Your task to perform on an android device: set the timer Image 0: 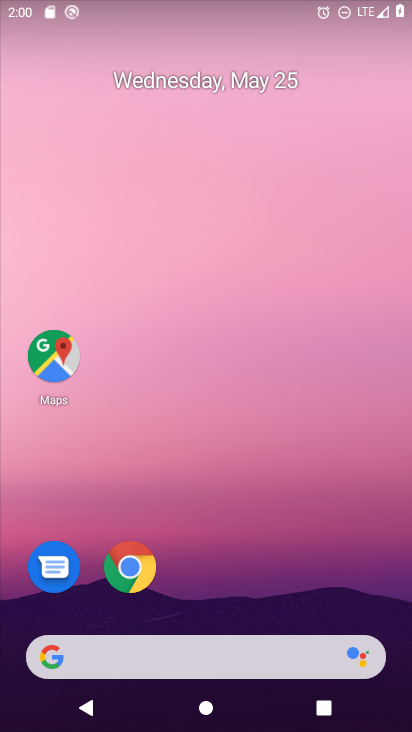
Step 0: press home button
Your task to perform on an android device: set the timer Image 1: 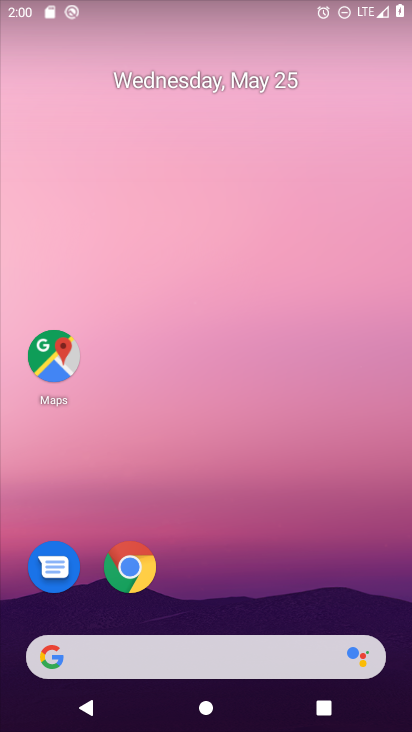
Step 1: drag from (397, 698) to (348, 270)
Your task to perform on an android device: set the timer Image 2: 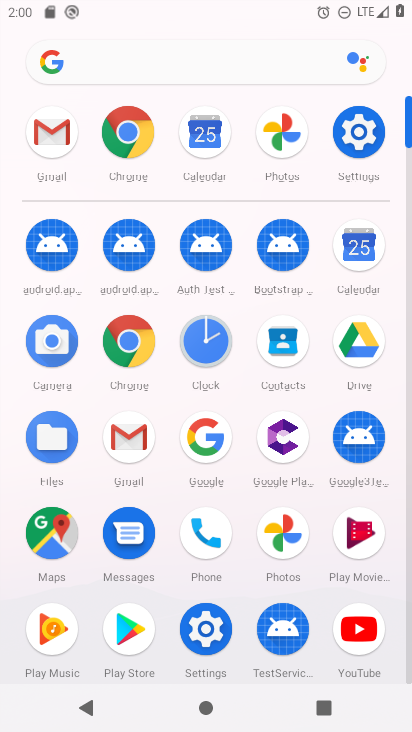
Step 2: click (347, 128)
Your task to perform on an android device: set the timer Image 3: 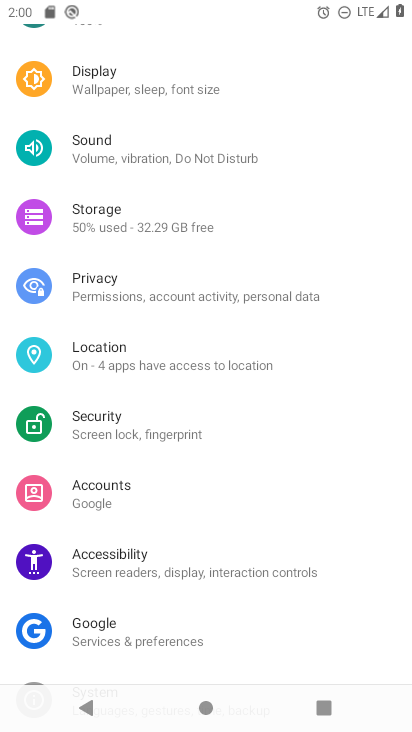
Step 3: press home button
Your task to perform on an android device: set the timer Image 4: 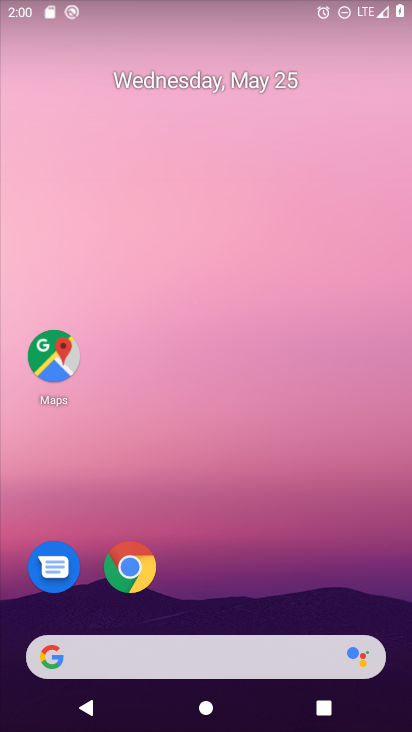
Step 4: drag from (393, 696) to (369, 206)
Your task to perform on an android device: set the timer Image 5: 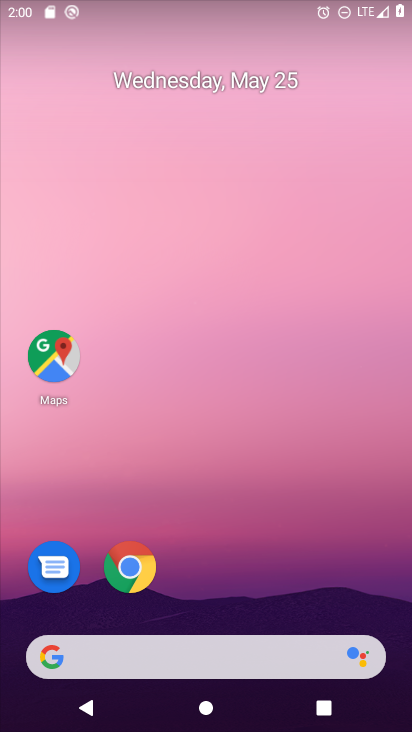
Step 5: drag from (407, 589) to (355, 106)
Your task to perform on an android device: set the timer Image 6: 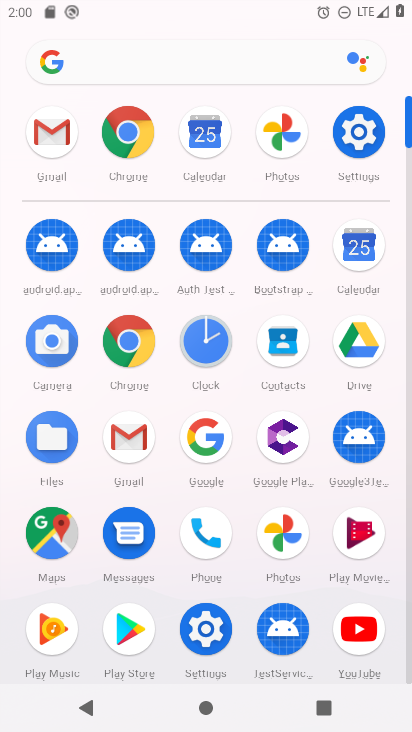
Step 6: click (217, 327)
Your task to perform on an android device: set the timer Image 7: 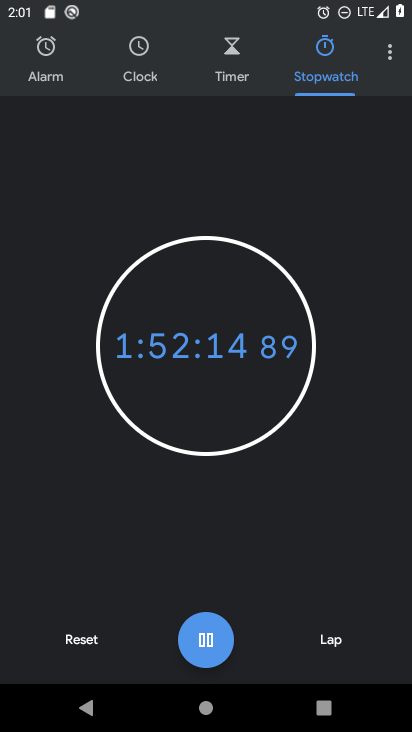
Step 7: click (57, 640)
Your task to perform on an android device: set the timer Image 8: 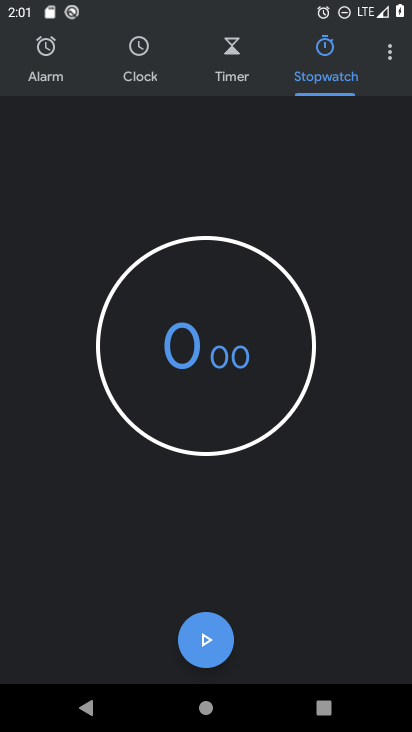
Step 8: click (203, 633)
Your task to perform on an android device: set the timer Image 9: 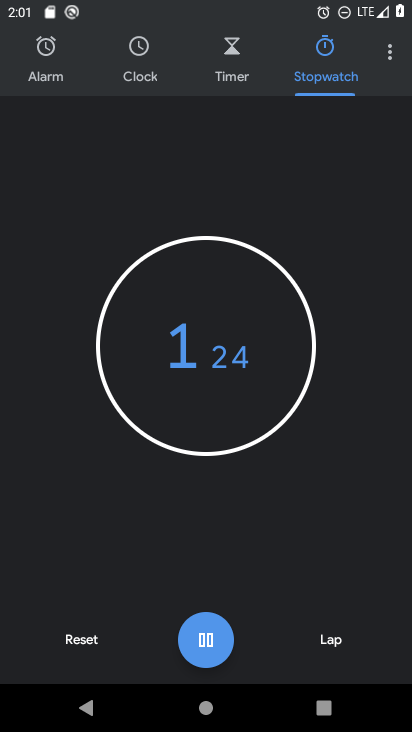
Step 9: task complete